Your task to perform on an android device: What's the weather? Image 0: 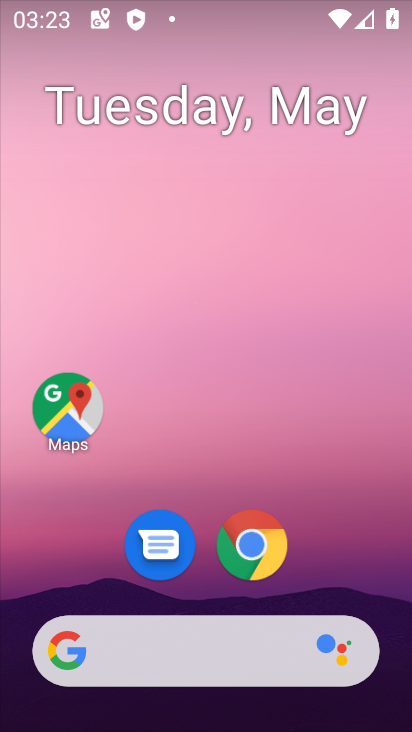
Step 0: click (181, 647)
Your task to perform on an android device: What's the weather? Image 1: 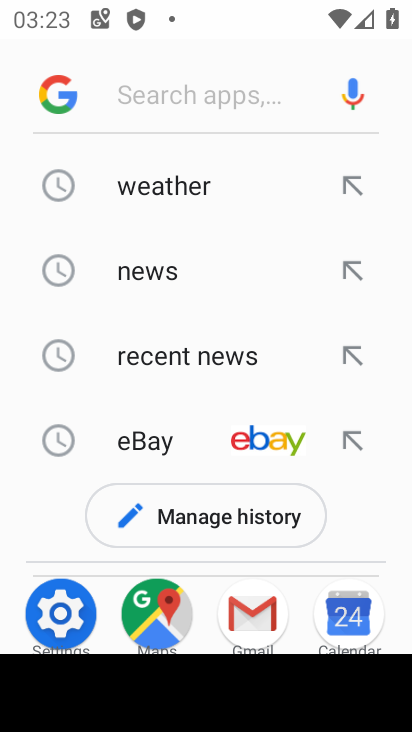
Step 1: click (153, 180)
Your task to perform on an android device: What's the weather? Image 2: 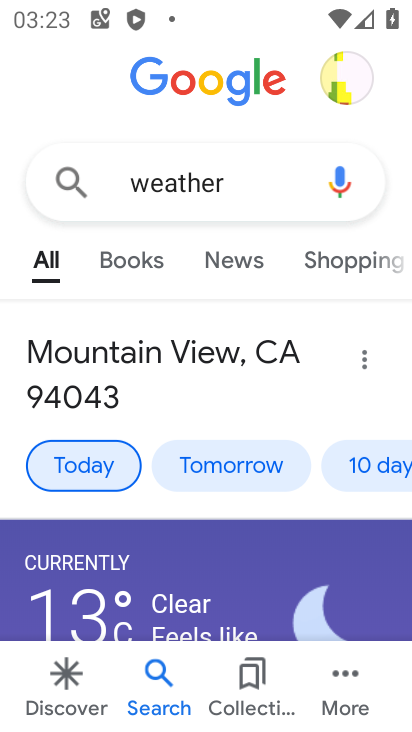
Step 2: task complete